Your task to perform on an android device: Open Amazon Image 0: 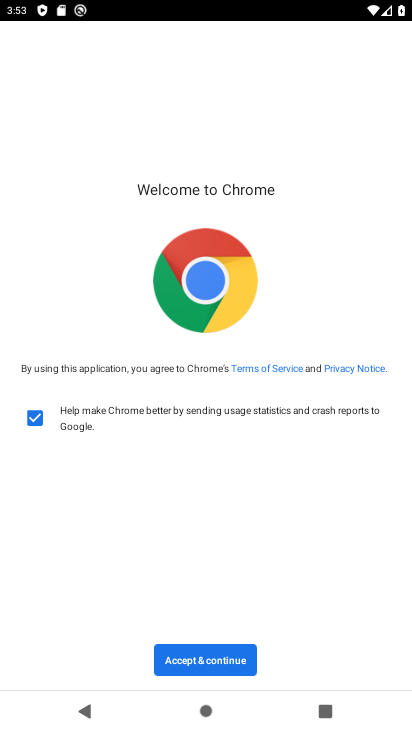
Step 0: press home button
Your task to perform on an android device: Open Amazon Image 1: 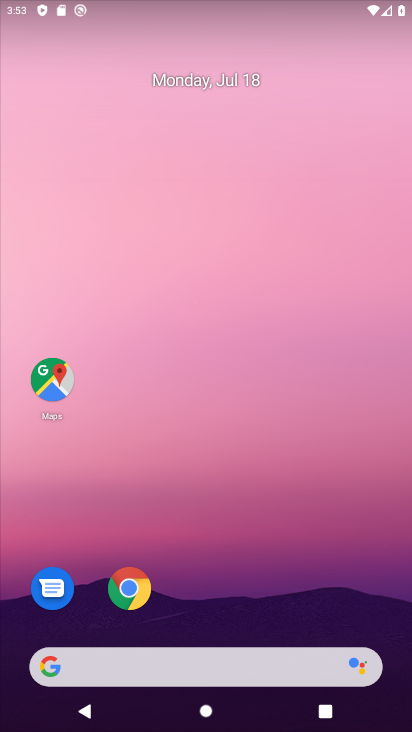
Step 1: click (161, 660)
Your task to perform on an android device: Open Amazon Image 2: 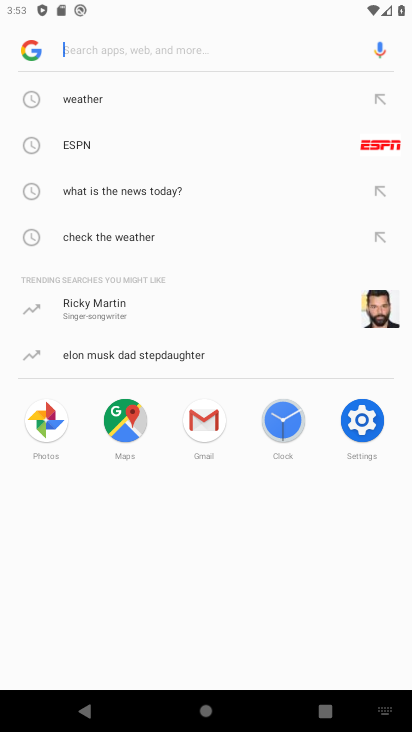
Step 2: press home button
Your task to perform on an android device: Open Amazon Image 3: 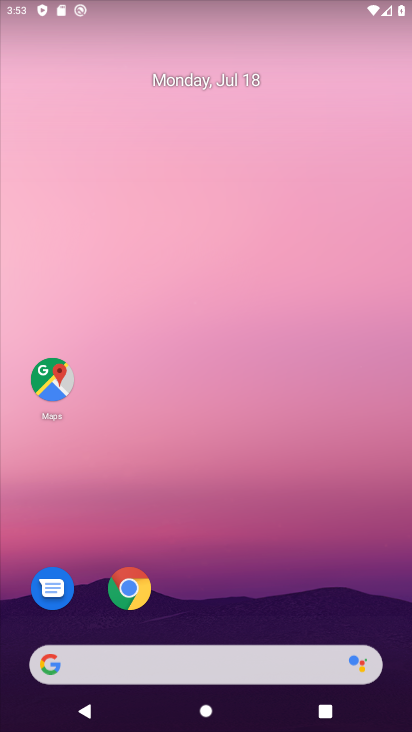
Step 3: click (147, 591)
Your task to perform on an android device: Open Amazon Image 4: 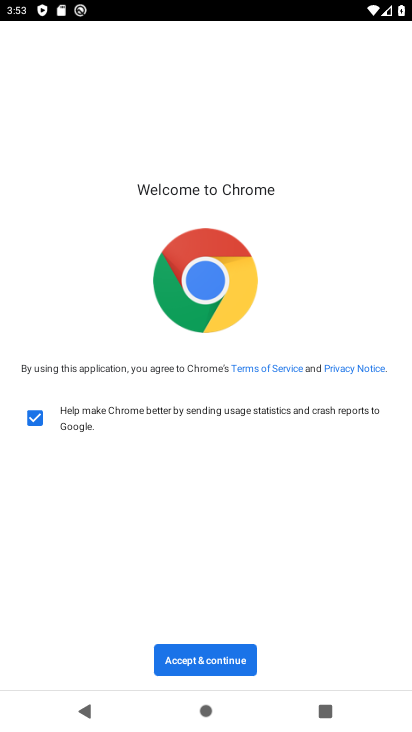
Step 4: click (231, 670)
Your task to perform on an android device: Open Amazon Image 5: 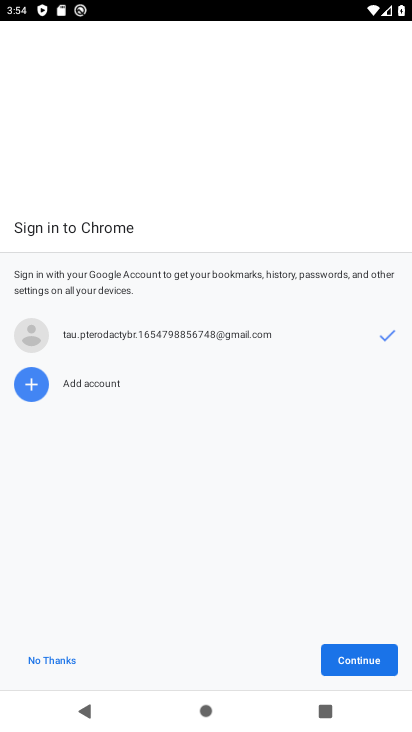
Step 5: click (343, 669)
Your task to perform on an android device: Open Amazon Image 6: 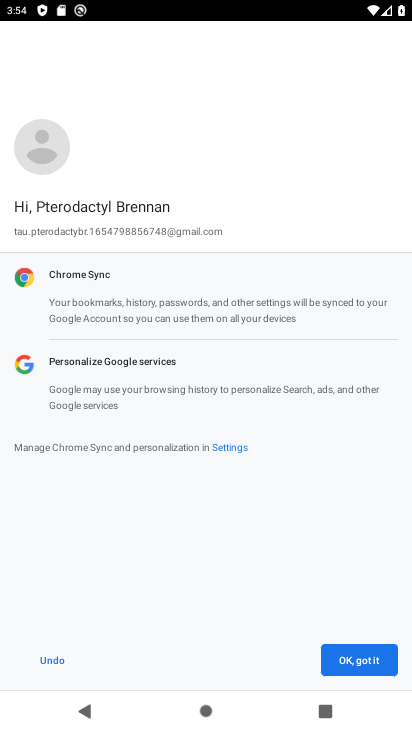
Step 6: click (377, 661)
Your task to perform on an android device: Open Amazon Image 7: 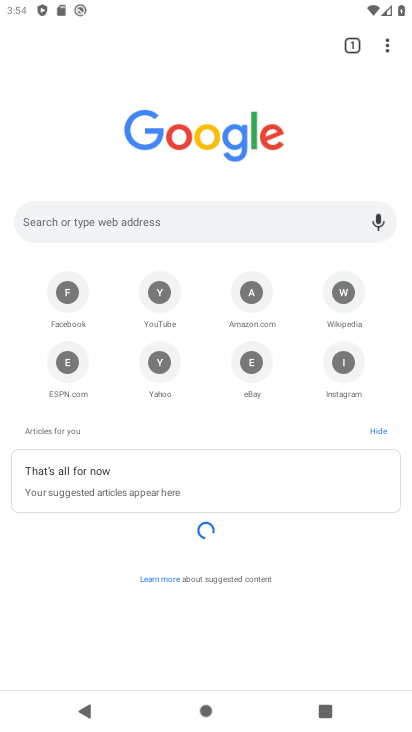
Step 7: click (246, 300)
Your task to perform on an android device: Open Amazon Image 8: 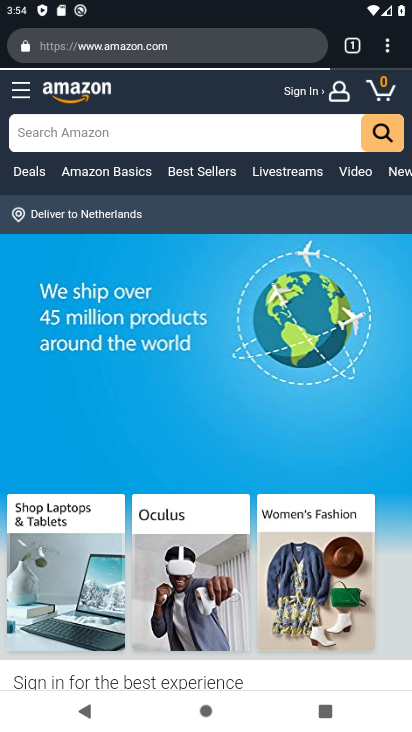
Step 8: task complete